Your task to perform on an android device: Go to wifi settings Image 0: 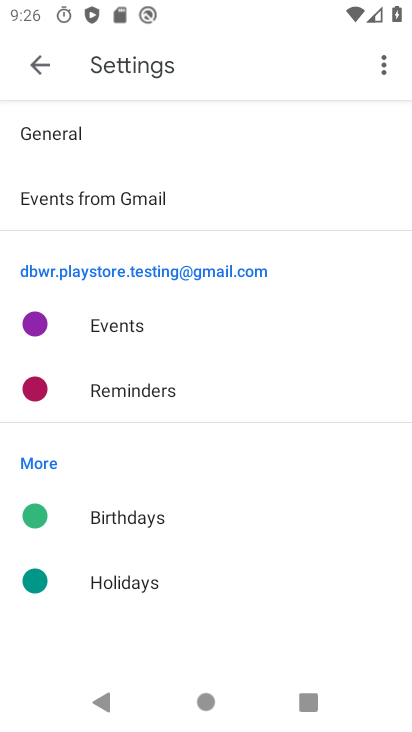
Step 0: press home button
Your task to perform on an android device: Go to wifi settings Image 1: 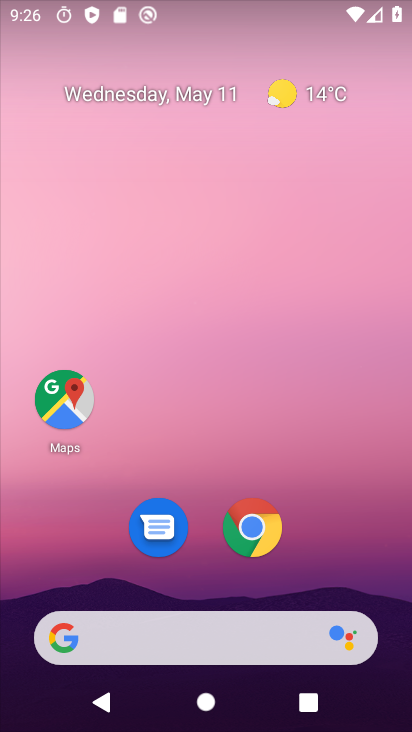
Step 1: drag from (249, 539) to (321, 115)
Your task to perform on an android device: Go to wifi settings Image 2: 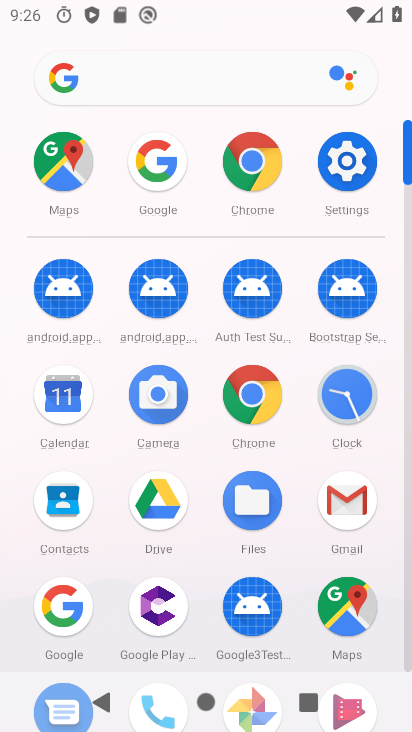
Step 2: click (363, 180)
Your task to perform on an android device: Go to wifi settings Image 3: 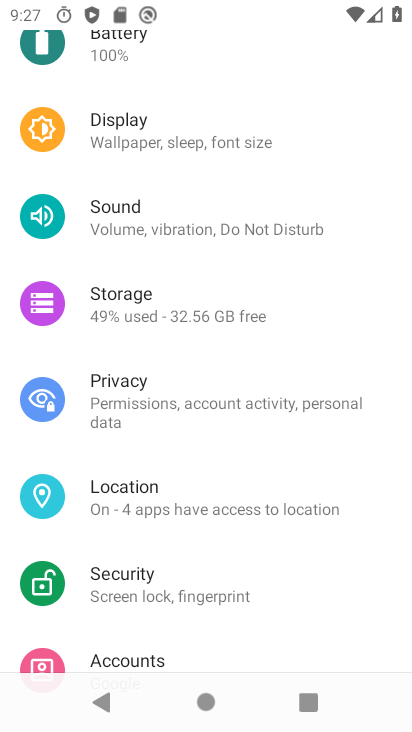
Step 3: drag from (247, 182) to (200, 730)
Your task to perform on an android device: Go to wifi settings Image 4: 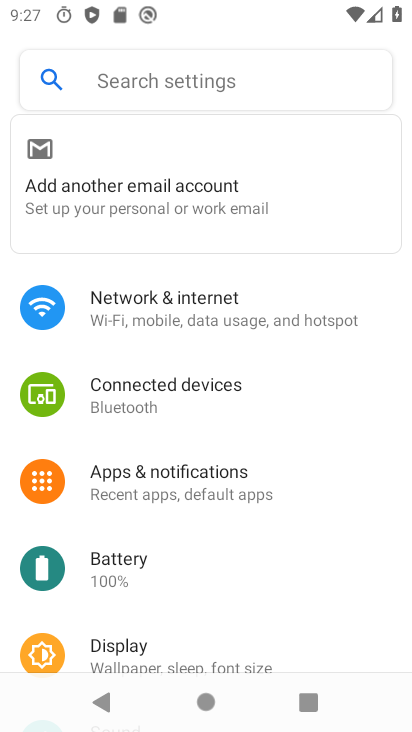
Step 4: click (163, 295)
Your task to perform on an android device: Go to wifi settings Image 5: 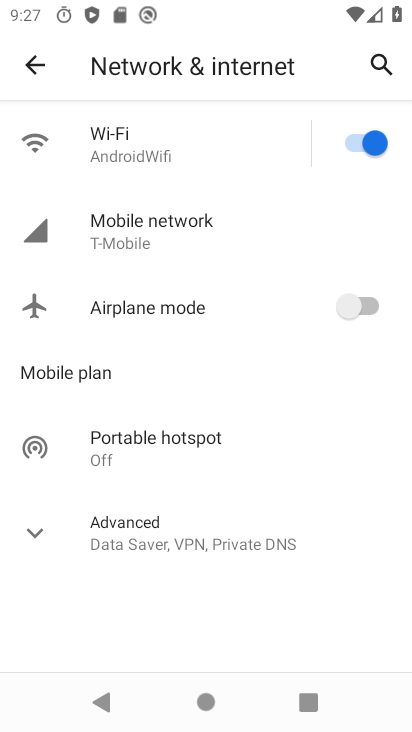
Step 5: click (153, 148)
Your task to perform on an android device: Go to wifi settings Image 6: 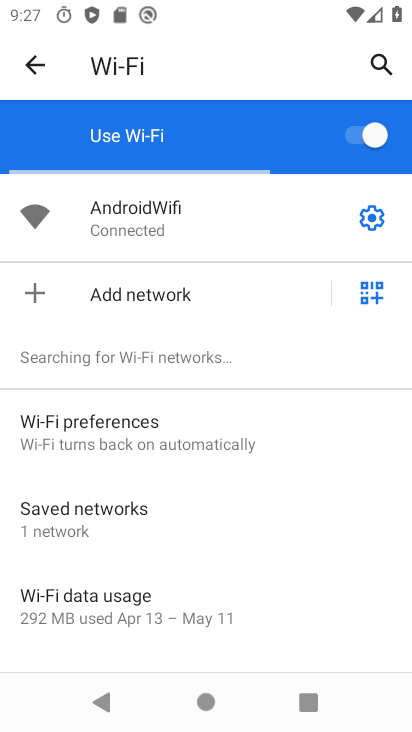
Step 6: task complete